Your task to perform on an android device: see creations saved in the google photos Image 0: 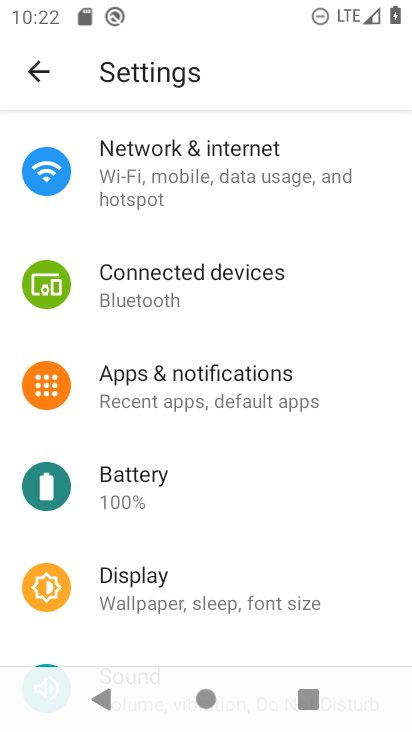
Step 0: press home button
Your task to perform on an android device: see creations saved in the google photos Image 1: 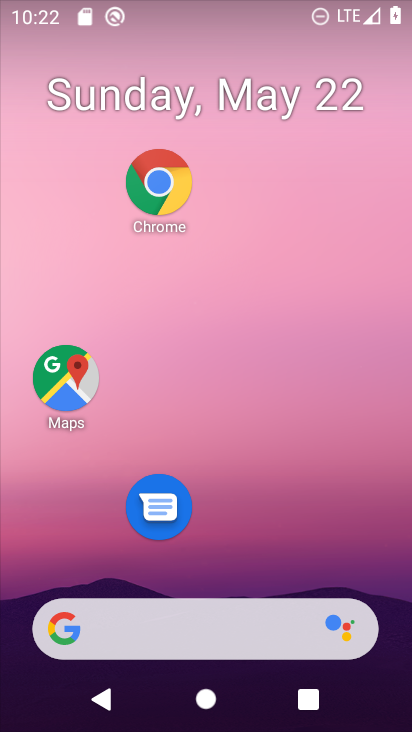
Step 1: drag from (258, 714) to (247, 4)
Your task to perform on an android device: see creations saved in the google photos Image 2: 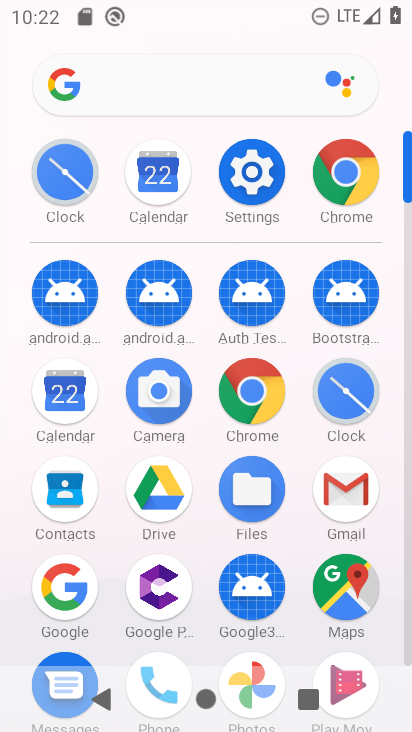
Step 2: click (259, 653)
Your task to perform on an android device: see creations saved in the google photos Image 3: 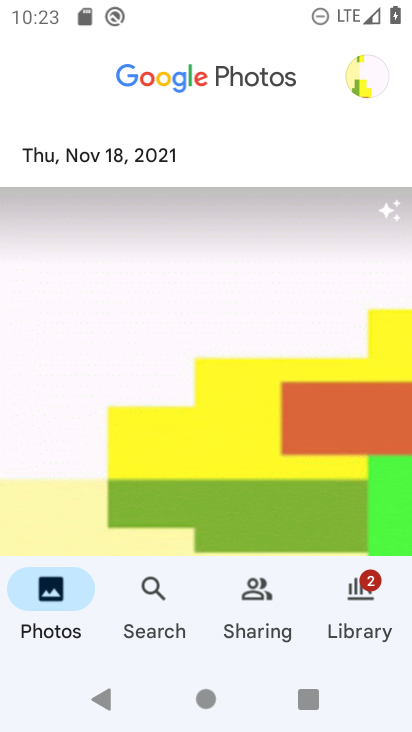
Step 3: click (135, 595)
Your task to perform on an android device: see creations saved in the google photos Image 4: 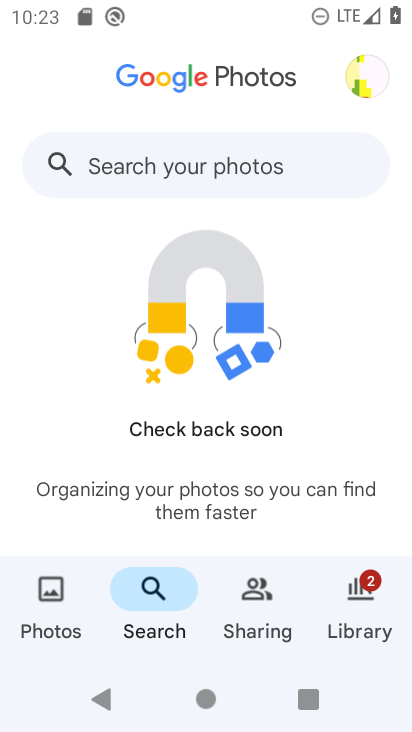
Step 4: click (157, 152)
Your task to perform on an android device: see creations saved in the google photos Image 5: 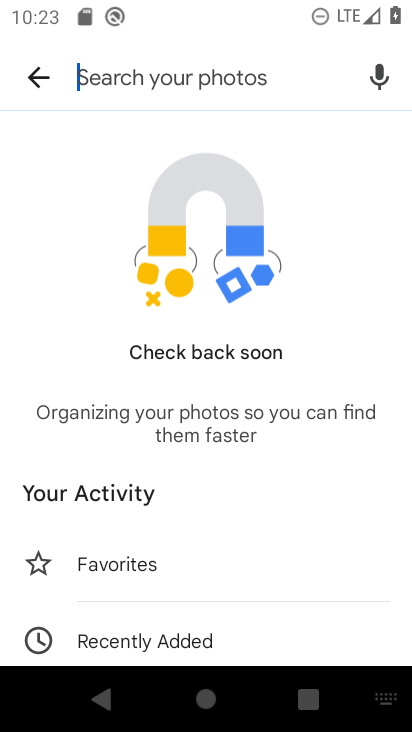
Step 5: drag from (199, 546) to (168, 84)
Your task to perform on an android device: see creations saved in the google photos Image 6: 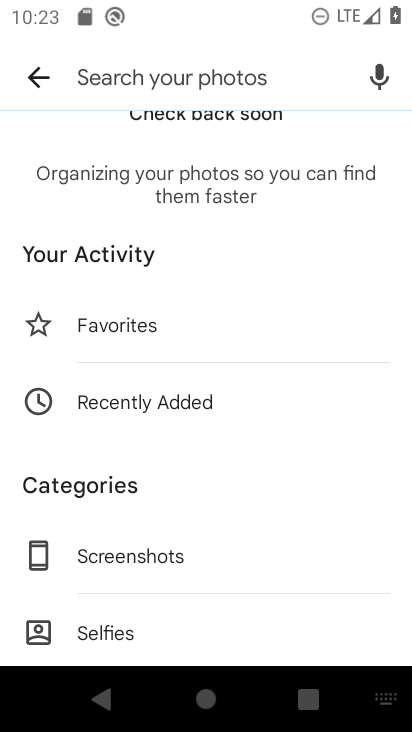
Step 6: drag from (156, 605) to (151, 188)
Your task to perform on an android device: see creations saved in the google photos Image 7: 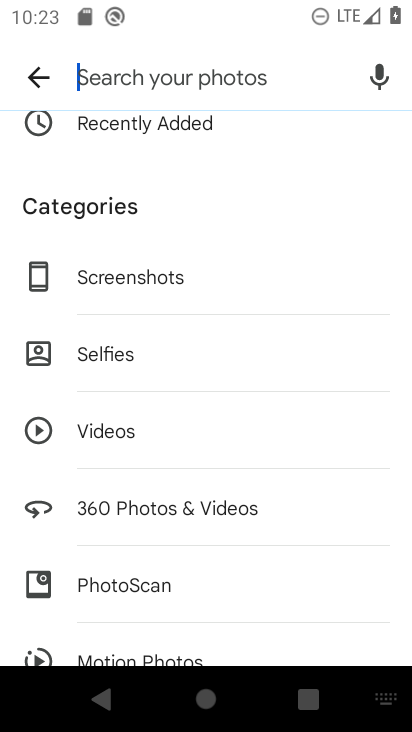
Step 7: drag from (228, 611) to (184, 248)
Your task to perform on an android device: see creations saved in the google photos Image 8: 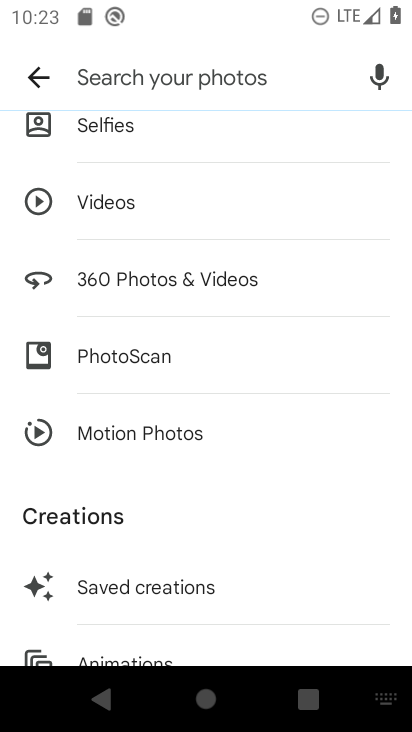
Step 8: click (147, 592)
Your task to perform on an android device: see creations saved in the google photos Image 9: 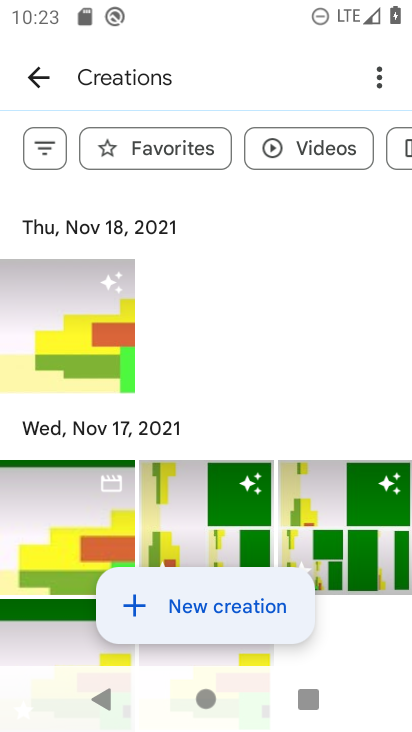
Step 9: task complete